Your task to perform on an android device: manage bookmarks in the chrome app Image 0: 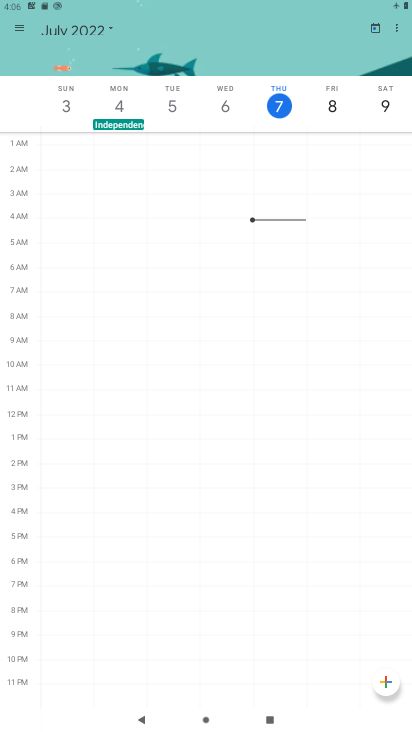
Step 0: press home button
Your task to perform on an android device: manage bookmarks in the chrome app Image 1: 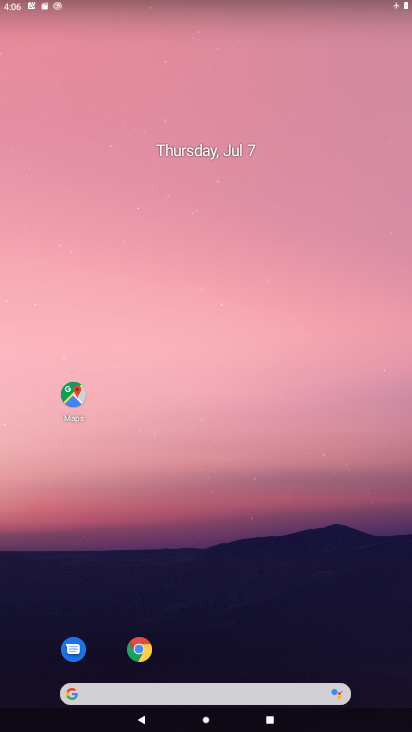
Step 1: click (139, 649)
Your task to perform on an android device: manage bookmarks in the chrome app Image 2: 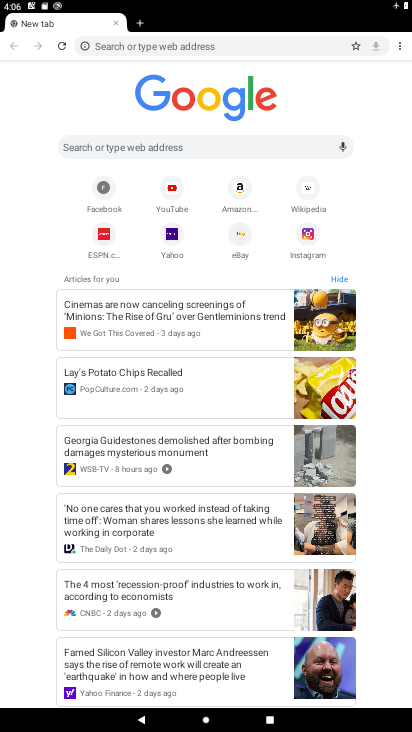
Step 2: click (398, 46)
Your task to perform on an android device: manage bookmarks in the chrome app Image 3: 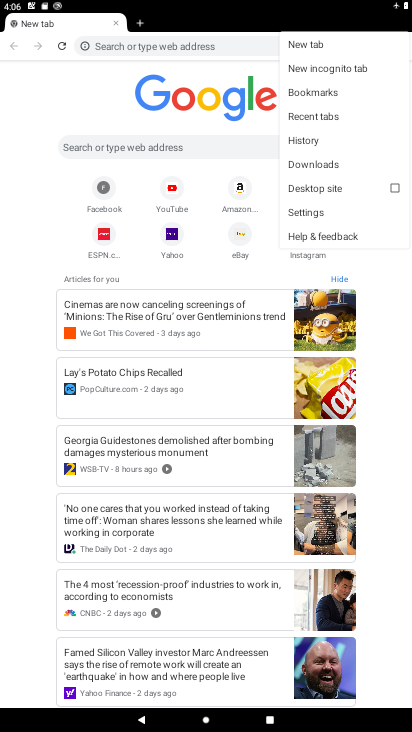
Step 3: click (310, 90)
Your task to perform on an android device: manage bookmarks in the chrome app Image 4: 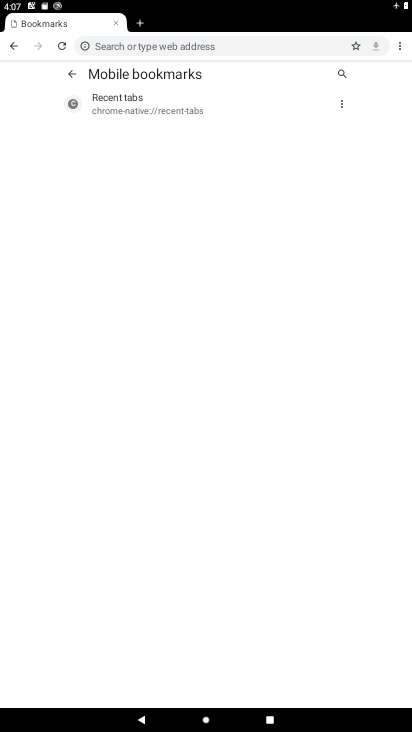
Step 4: task complete